Your task to perform on an android device: Go to CNN.com Image 0: 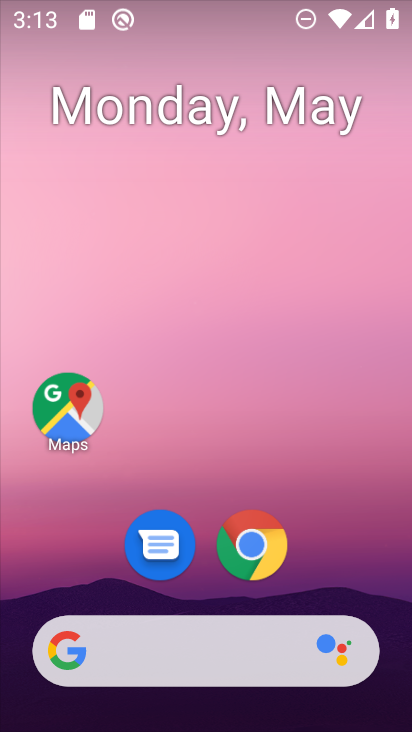
Step 0: click (267, 567)
Your task to perform on an android device: Go to CNN.com Image 1: 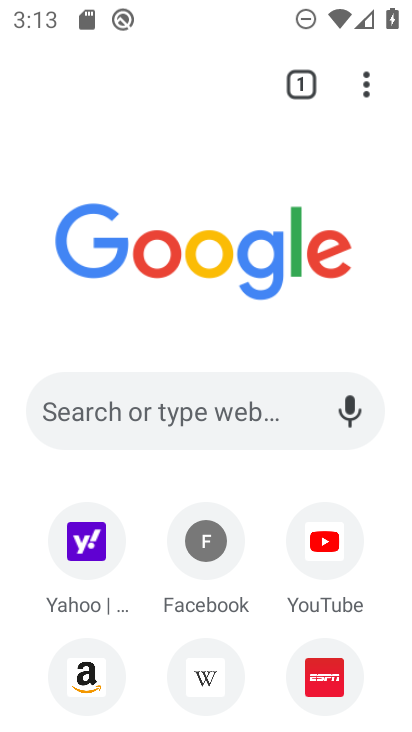
Step 1: click (216, 406)
Your task to perform on an android device: Go to CNN.com Image 2: 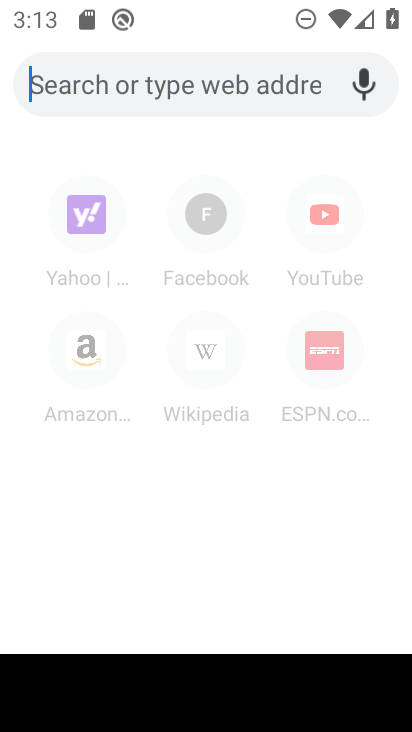
Step 2: type "CNN.com"
Your task to perform on an android device: Go to CNN.com Image 3: 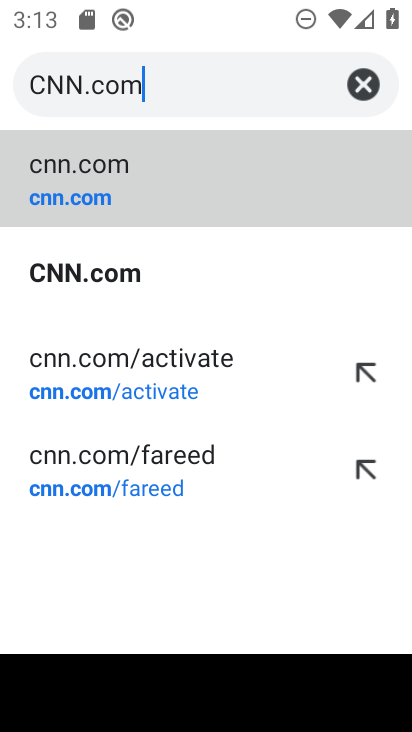
Step 3: click (106, 204)
Your task to perform on an android device: Go to CNN.com Image 4: 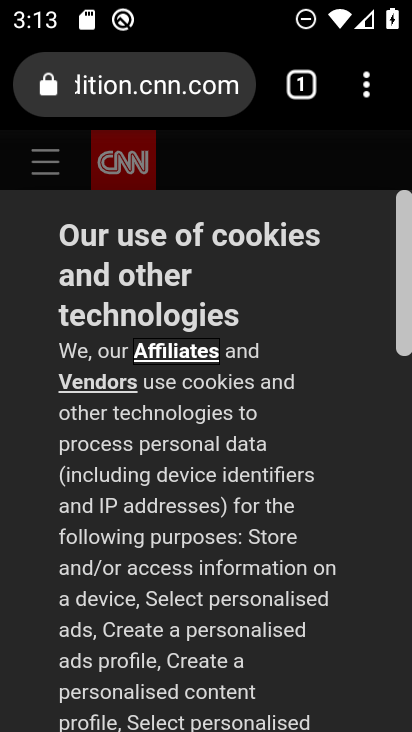
Step 4: task complete